Your task to perform on an android device: Open Google Chrome Image 0: 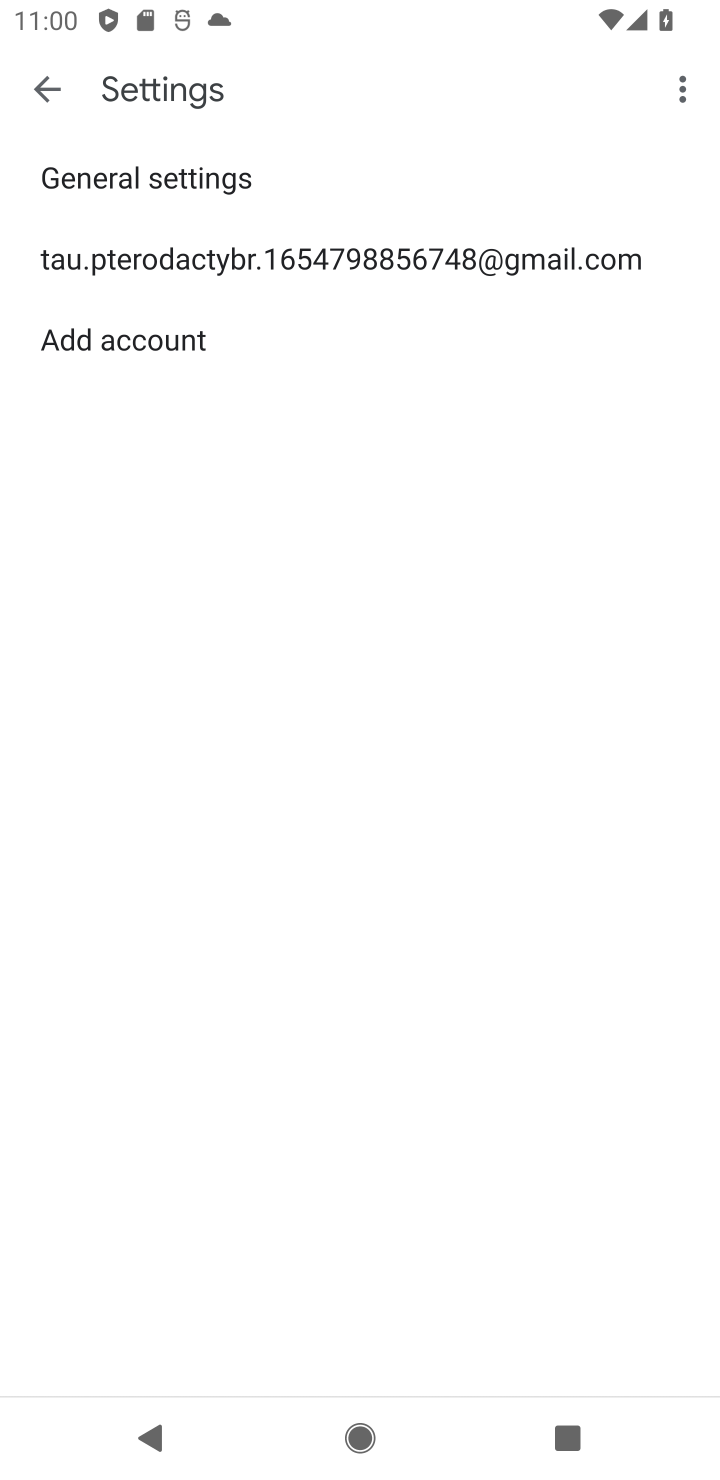
Step 0: press home button
Your task to perform on an android device: Open Google Chrome Image 1: 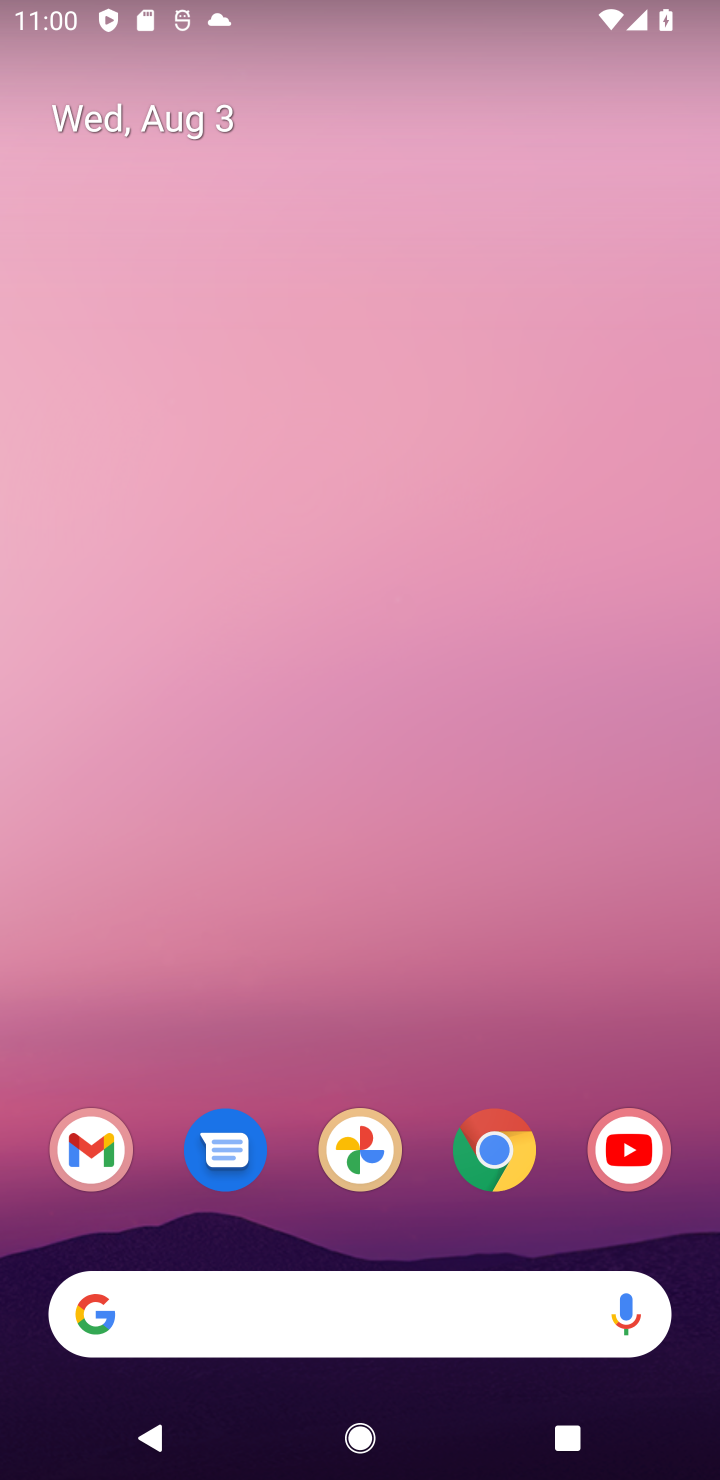
Step 1: drag from (540, 885) to (552, 333)
Your task to perform on an android device: Open Google Chrome Image 2: 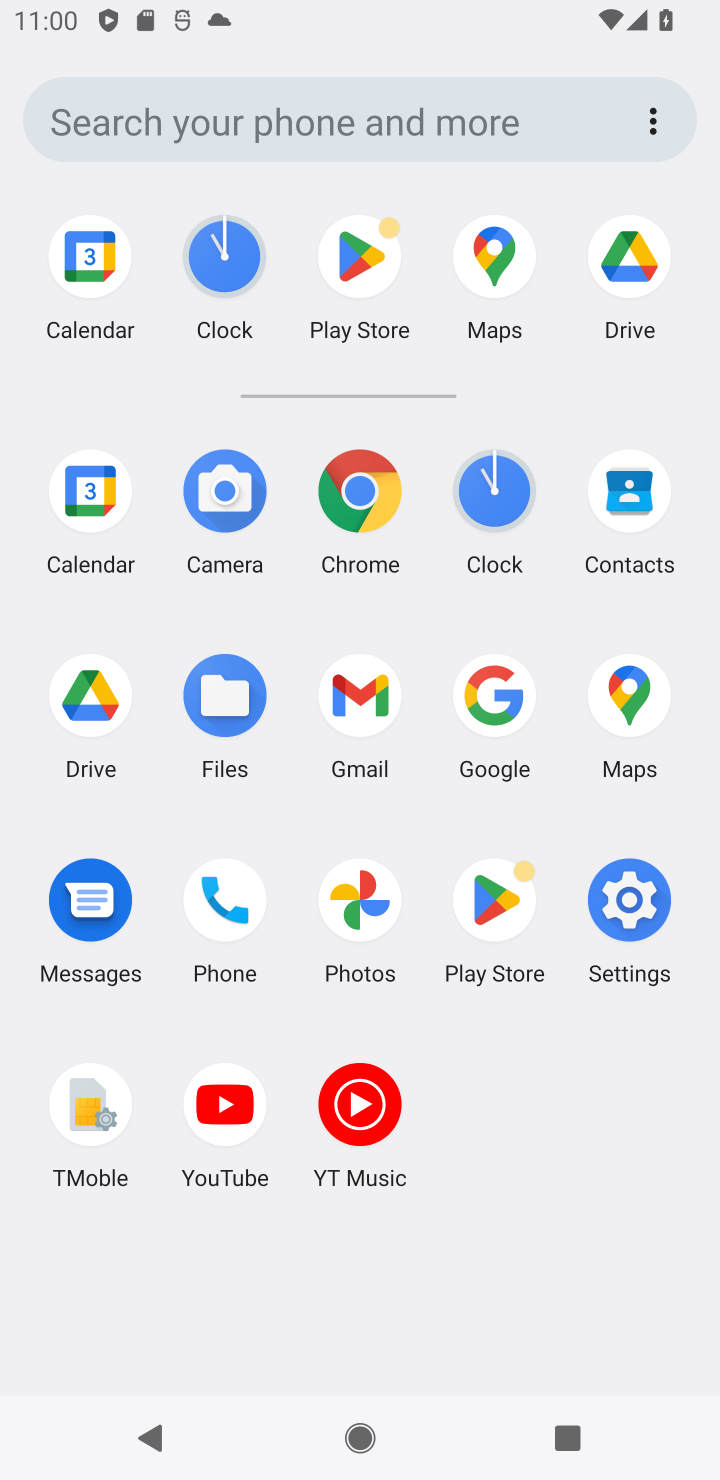
Step 2: click (374, 494)
Your task to perform on an android device: Open Google Chrome Image 3: 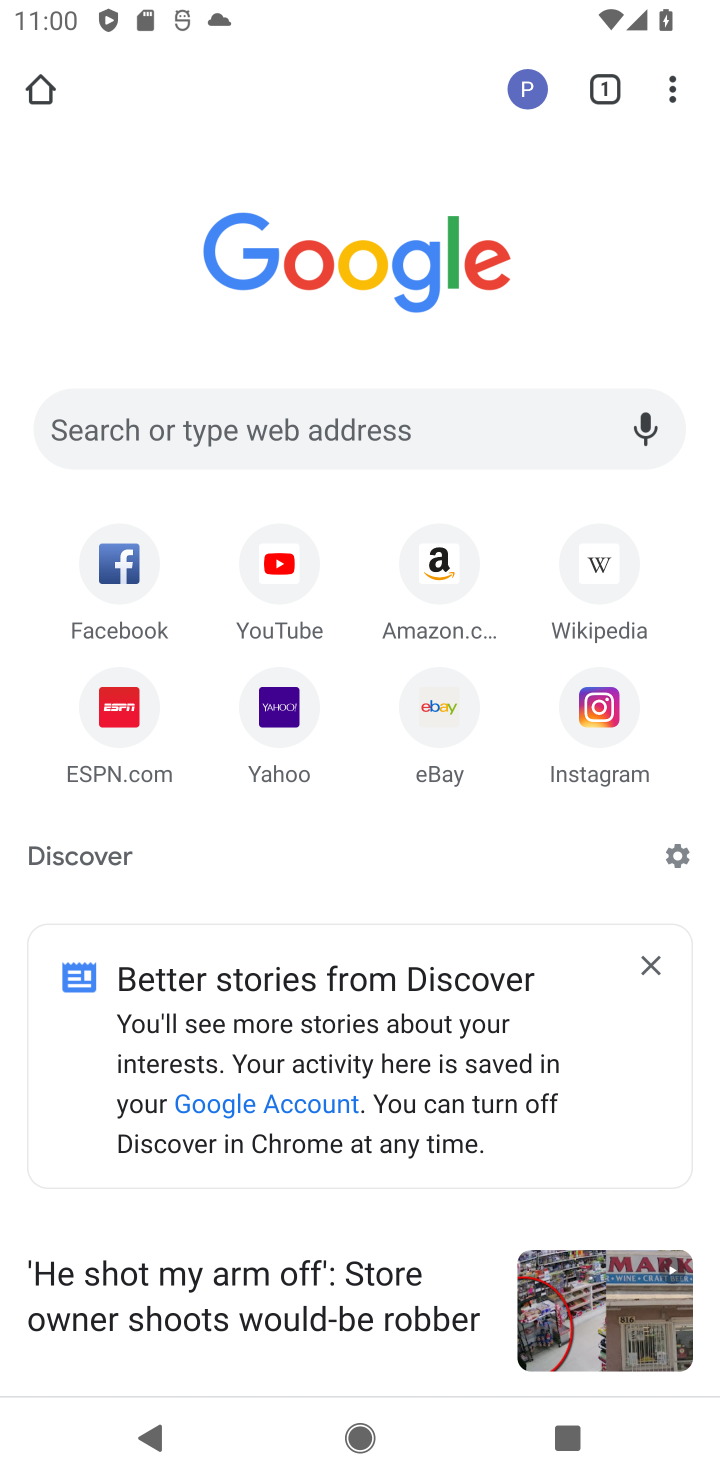
Step 3: task complete